Your task to perform on an android device: Open calendar and show me the fourth week of next month Image 0: 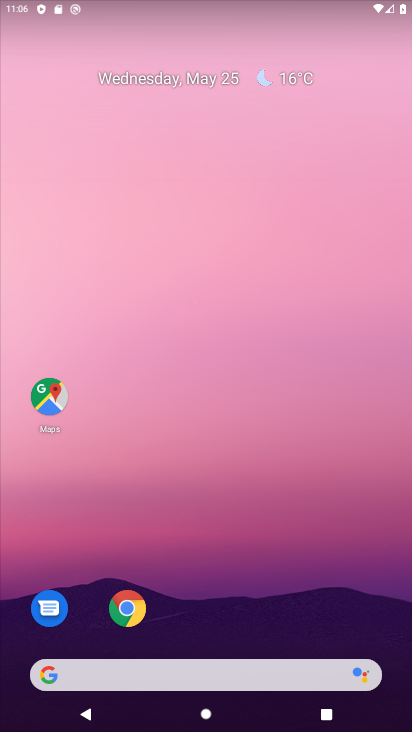
Step 0: drag from (251, 563) to (289, 66)
Your task to perform on an android device: Open calendar and show me the fourth week of next month Image 1: 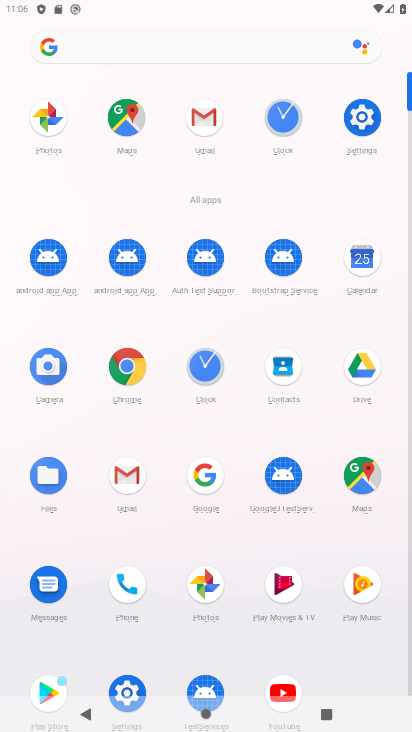
Step 1: click (361, 263)
Your task to perform on an android device: Open calendar and show me the fourth week of next month Image 2: 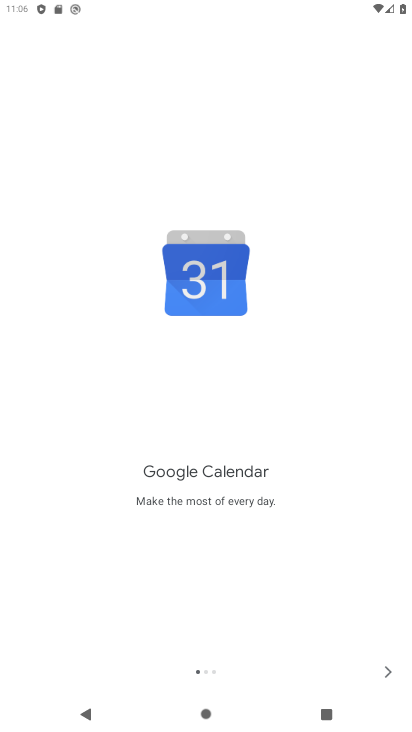
Step 2: click (380, 665)
Your task to perform on an android device: Open calendar and show me the fourth week of next month Image 3: 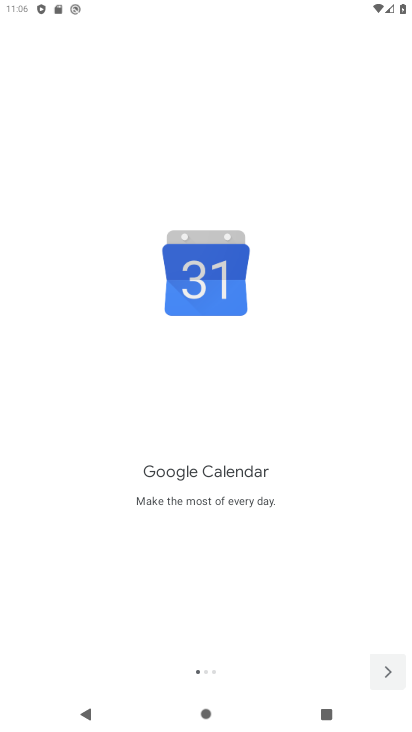
Step 3: click (380, 665)
Your task to perform on an android device: Open calendar and show me the fourth week of next month Image 4: 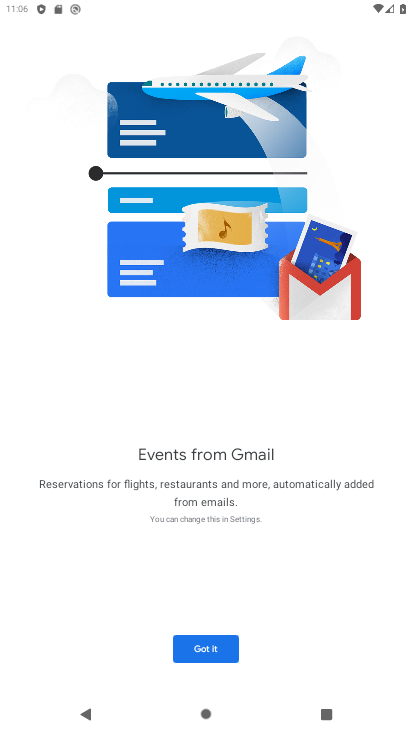
Step 4: click (199, 657)
Your task to perform on an android device: Open calendar and show me the fourth week of next month Image 5: 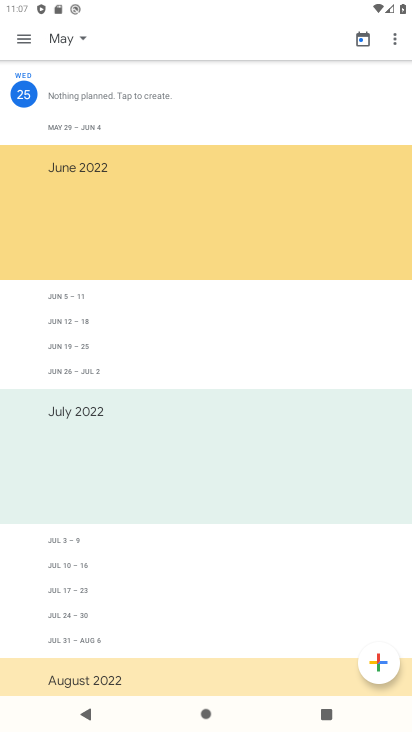
Step 5: click (76, 37)
Your task to perform on an android device: Open calendar and show me the fourth week of next month Image 6: 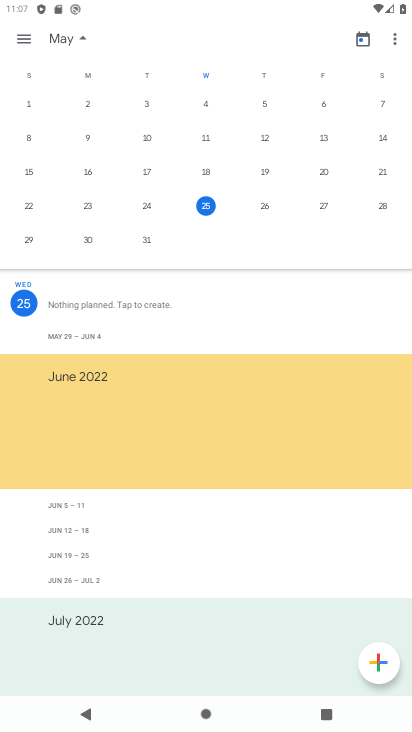
Step 6: drag from (364, 164) to (53, 153)
Your task to perform on an android device: Open calendar and show me the fourth week of next month Image 7: 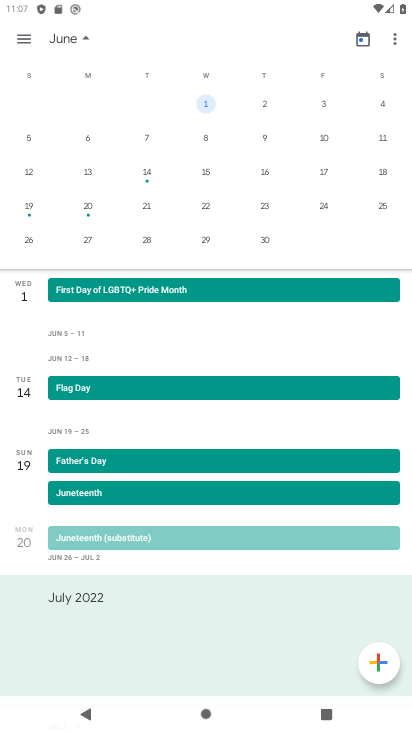
Step 7: click (88, 206)
Your task to perform on an android device: Open calendar and show me the fourth week of next month Image 8: 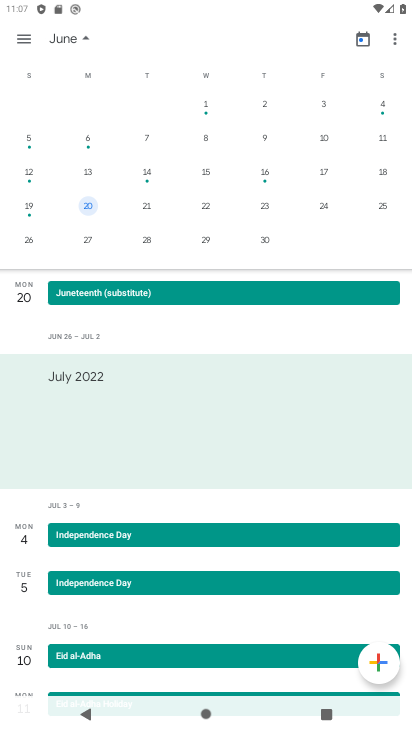
Step 8: task complete